Your task to perform on an android device: toggle notification dots Image 0: 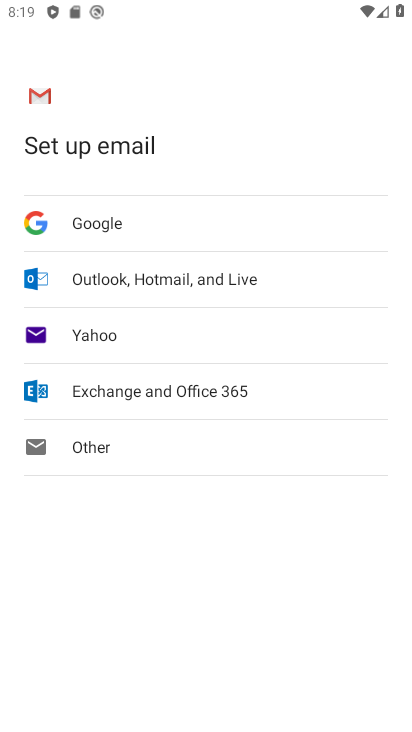
Step 0: press home button
Your task to perform on an android device: toggle notification dots Image 1: 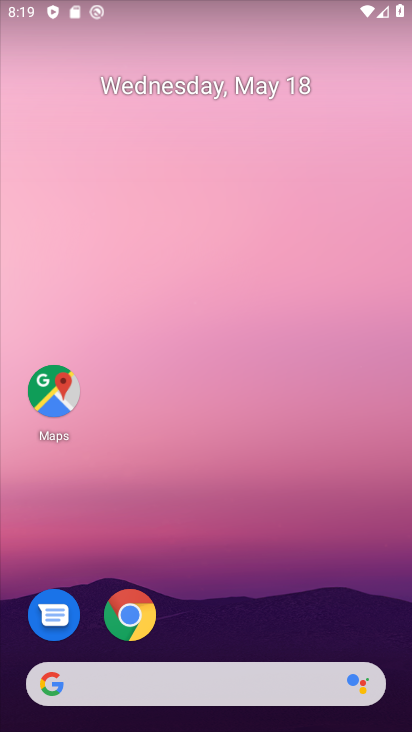
Step 1: drag from (215, 623) to (219, 259)
Your task to perform on an android device: toggle notification dots Image 2: 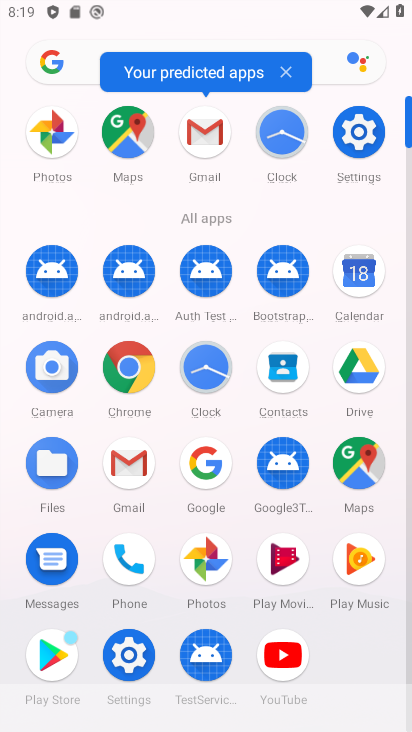
Step 2: click (356, 137)
Your task to perform on an android device: toggle notification dots Image 3: 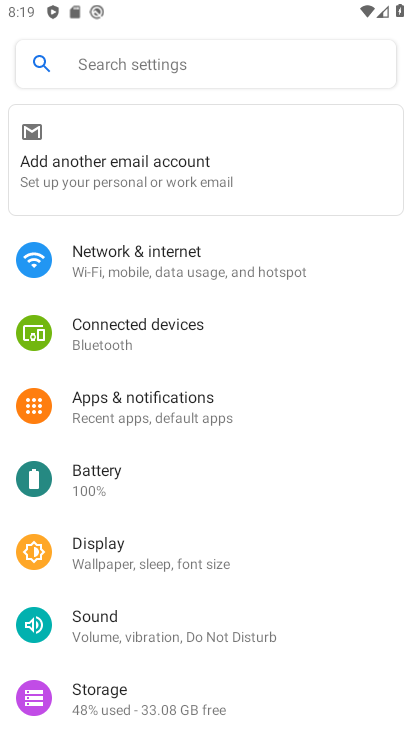
Step 3: click (200, 417)
Your task to perform on an android device: toggle notification dots Image 4: 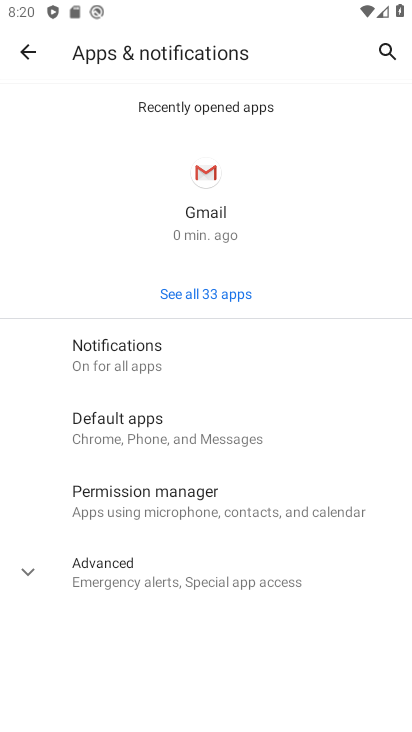
Step 4: click (139, 353)
Your task to perform on an android device: toggle notification dots Image 5: 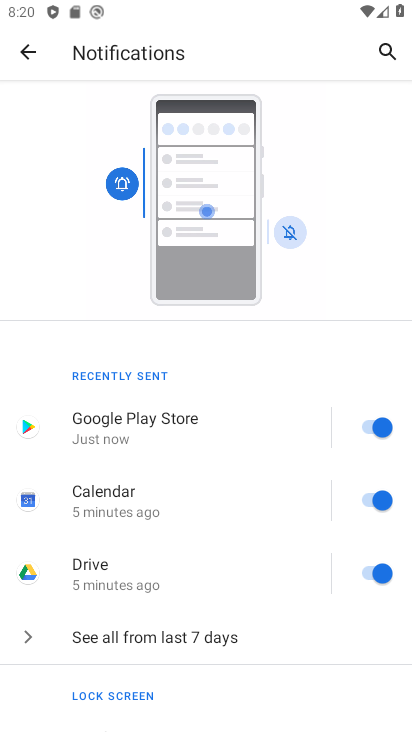
Step 5: drag from (271, 622) to (226, 291)
Your task to perform on an android device: toggle notification dots Image 6: 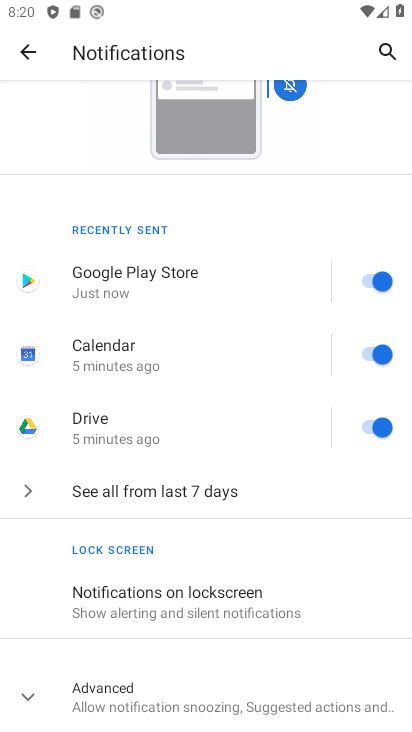
Step 6: click (203, 665)
Your task to perform on an android device: toggle notification dots Image 7: 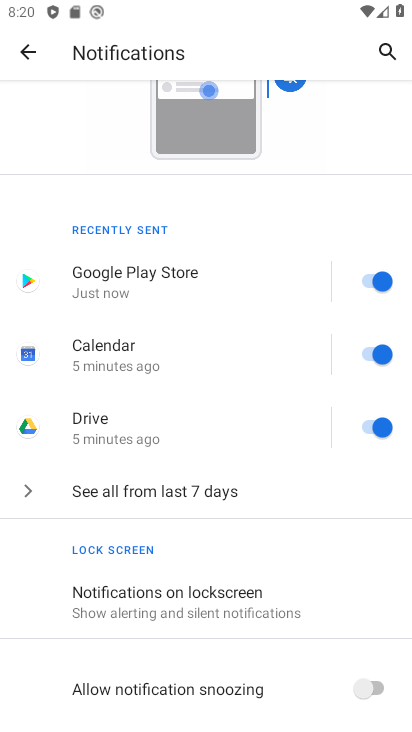
Step 7: drag from (217, 662) to (198, 280)
Your task to perform on an android device: toggle notification dots Image 8: 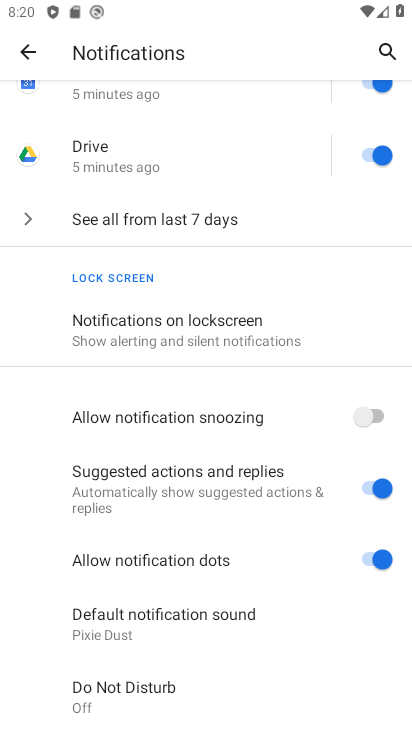
Step 8: click (378, 562)
Your task to perform on an android device: toggle notification dots Image 9: 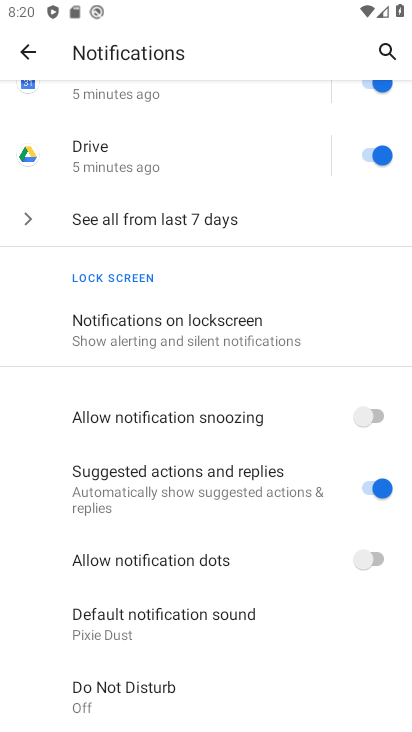
Step 9: task complete